Your task to perform on an android device: clear history in the chrome app Image 0: 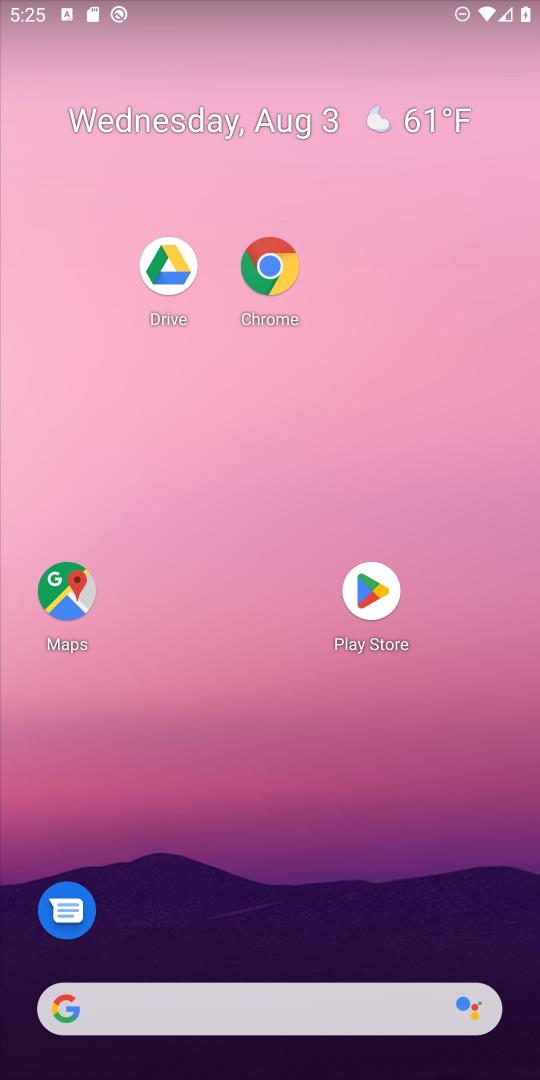
Step 0: drag from (418, 1026) to (428, 4)
Your task to perform on an android device: clear history in the chrome app Image 1: 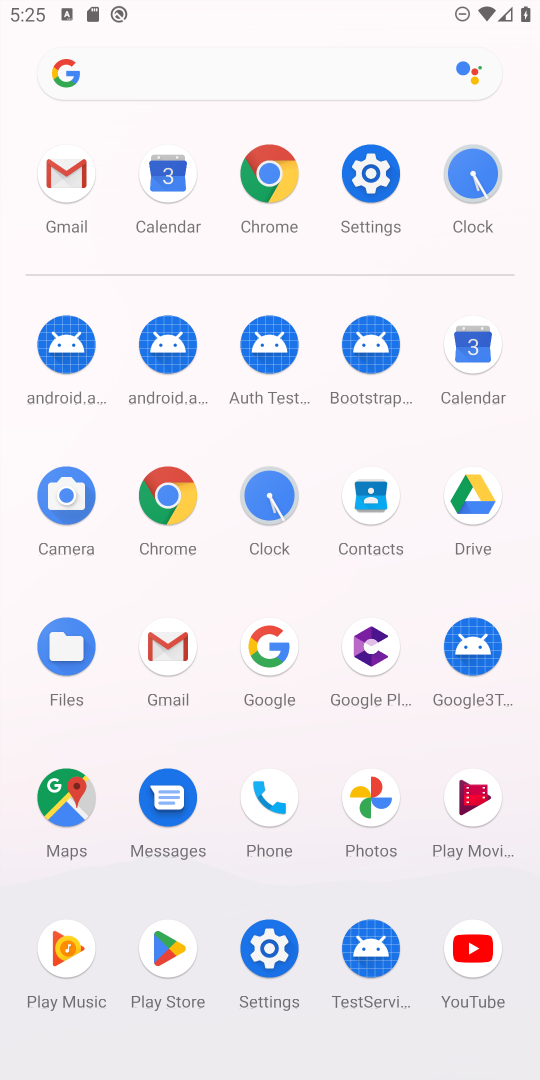
Step 1: click (162, 484)
Your task to perform on an android device: clear history in the chrome app Image 2: 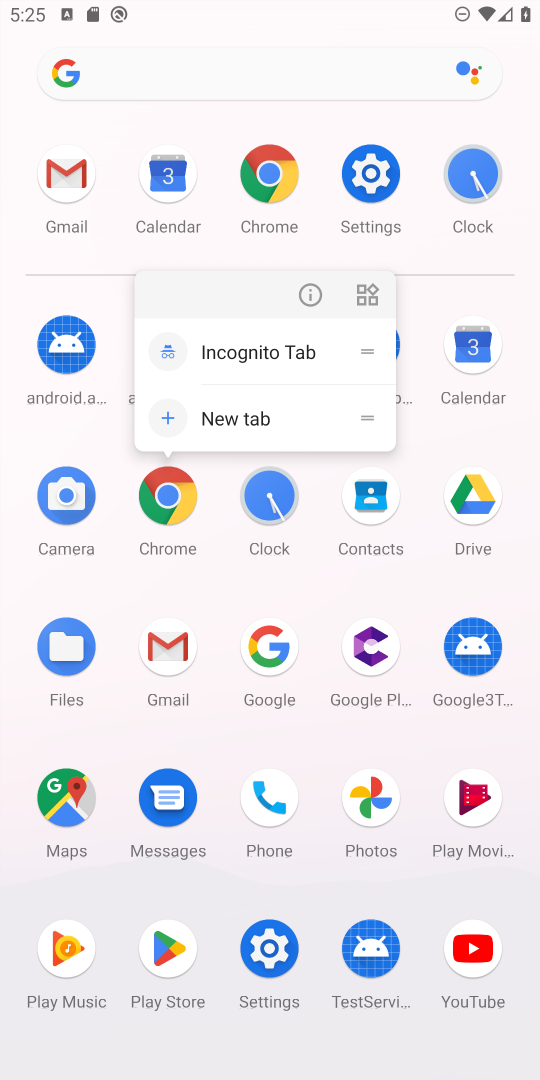
Step 2: click (170, 496)
Your task to perform on an android device: clear history in the chrome app Image 3: 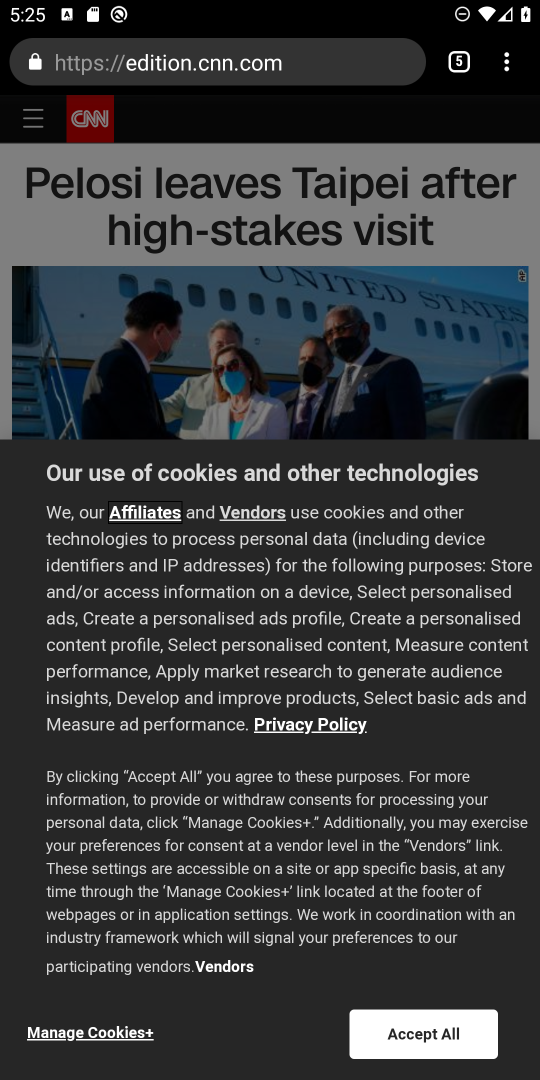
Step 3: drag from (506, 45) to (314, 334)
Your task to perform on an android device: clear history in the chrome app Image 4: 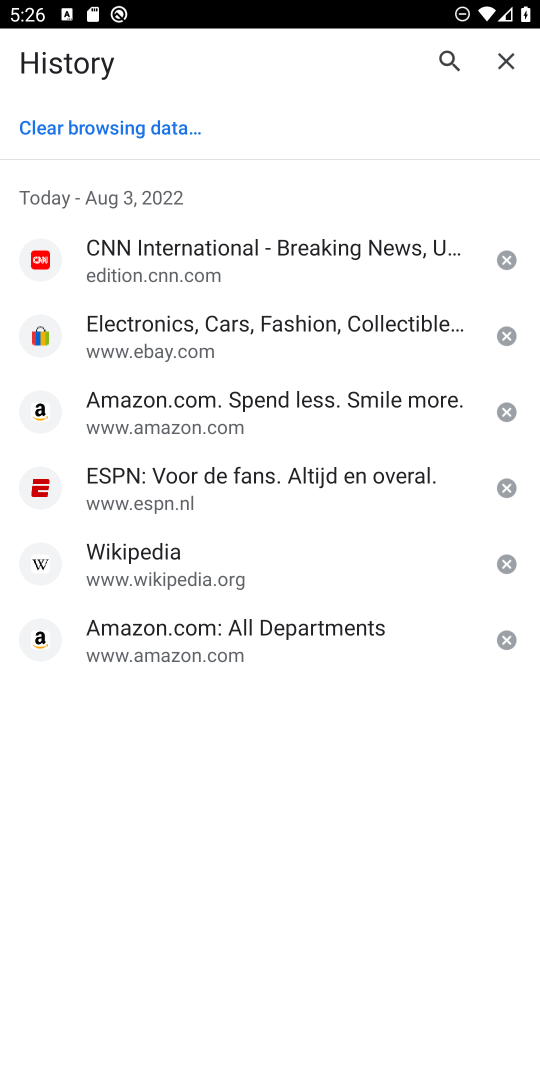
Step 4: click (137, 119)
Your task to perform on an android device: clear history in the chrome app Image 5: 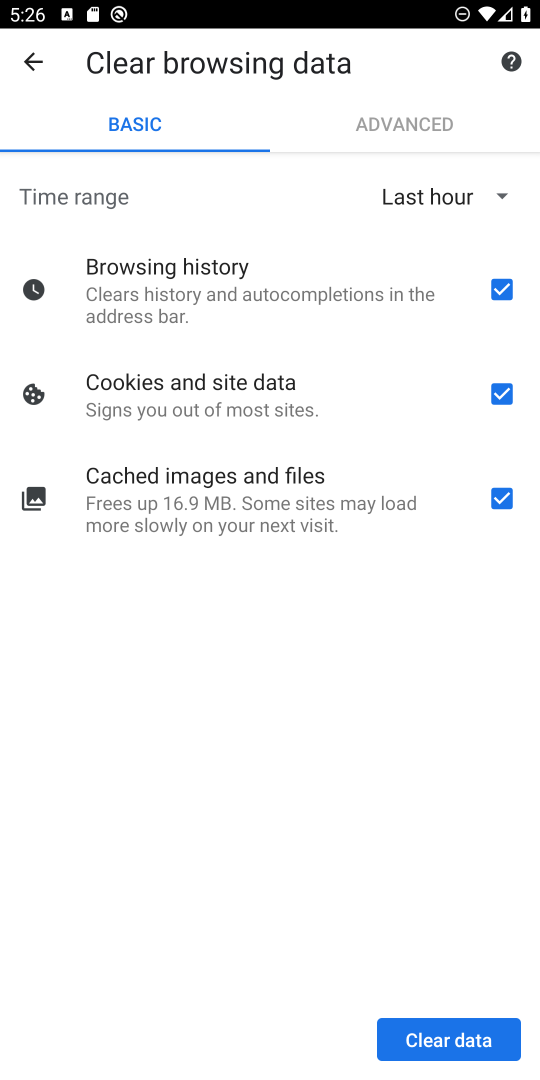
Step 5: click (446, 1044)
Your task to perform on an android device: clear history in the chrome app Image 6: 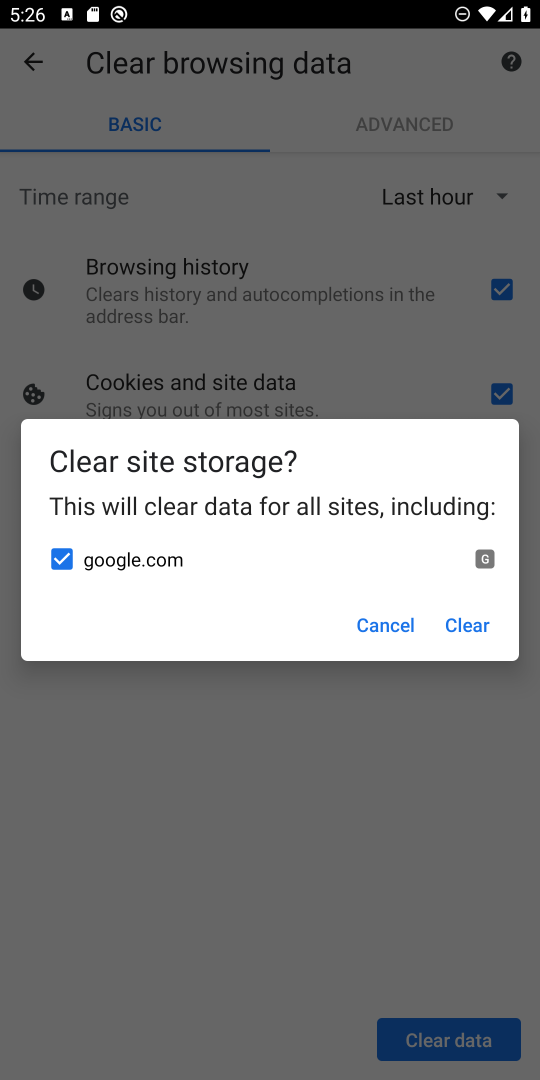
Step 6: click (473, 624)
Your task to perform on an android device: clear history in the chrome app Image 7: 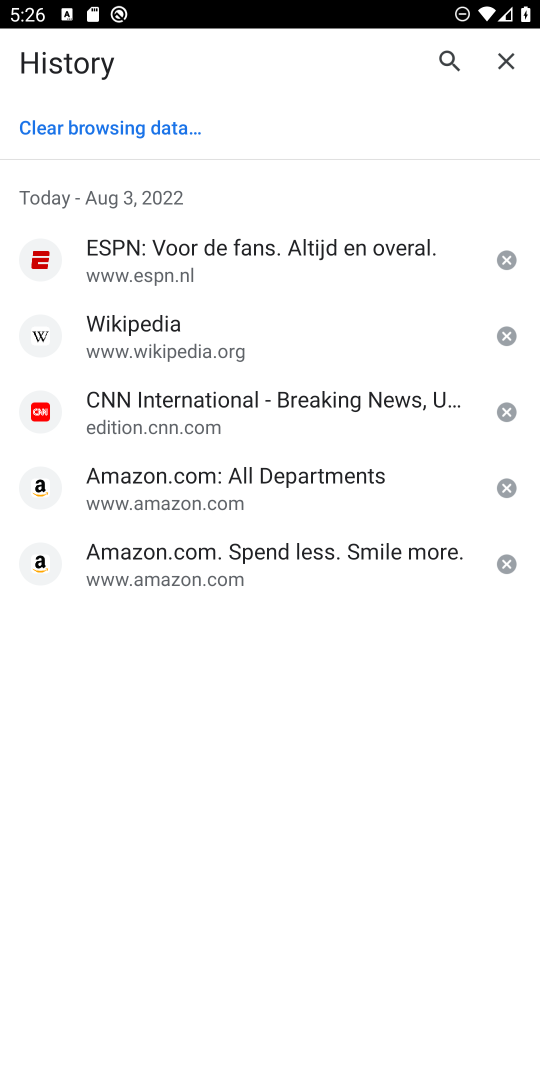
Step 7: click (512, 259)
Your task to perform on an android device: clear history in the chrome app Image 8: 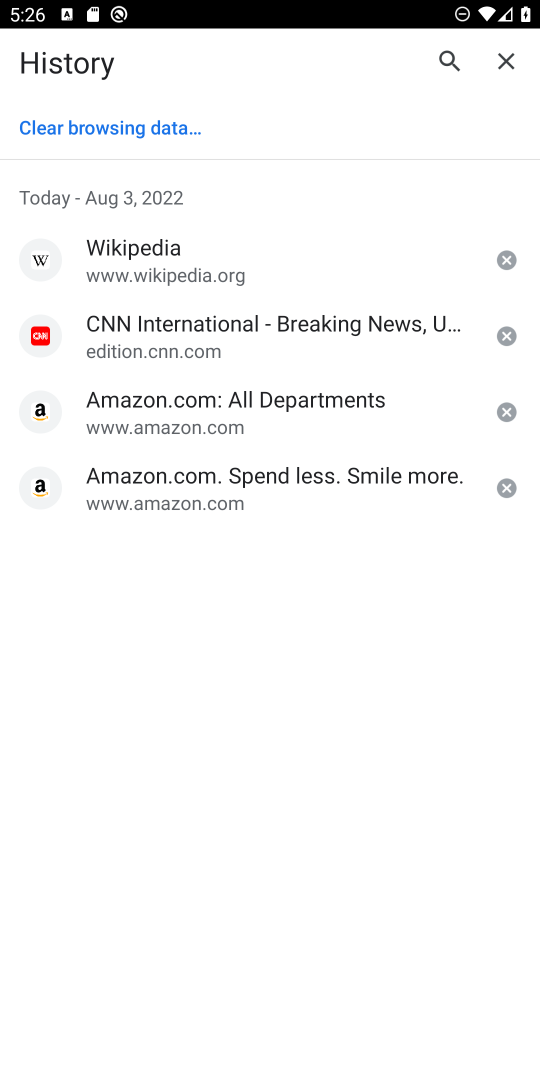
Step 8: click (512, 259)
Your task to perform on an android device: clear history in the chrome app Image 9: 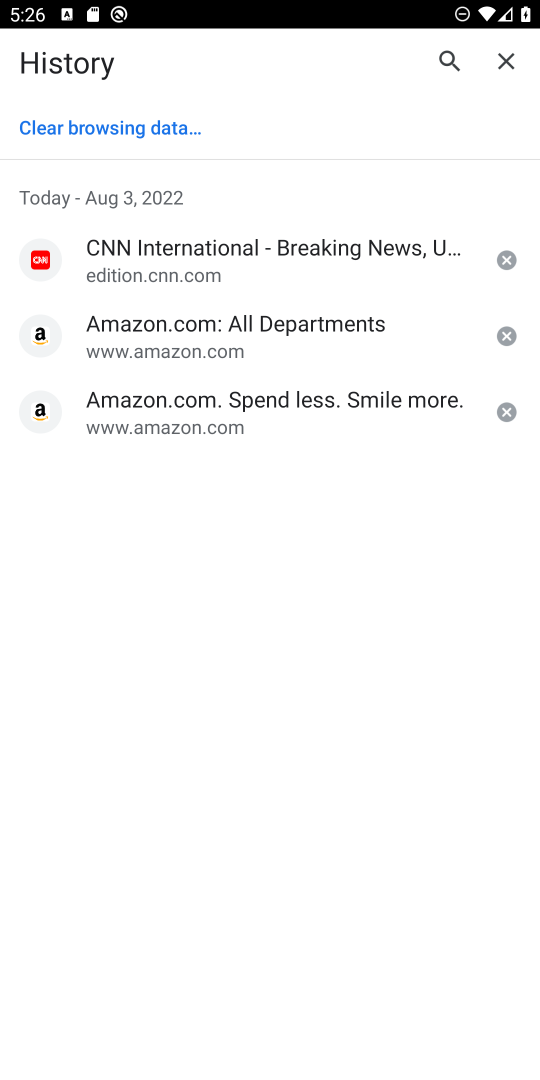
Step 9: click (512, 259)
Your task to perform on an android device: clear history in the chrome app Image 10: 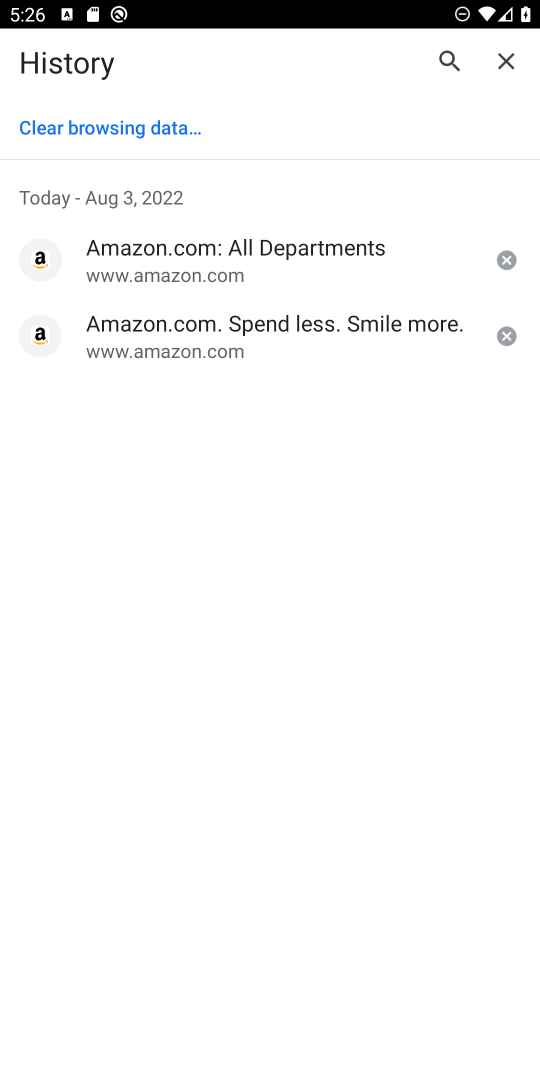
Step 10: click (512, 259)
Your task to perform on an android device: clear history in the chrome app Image 11: 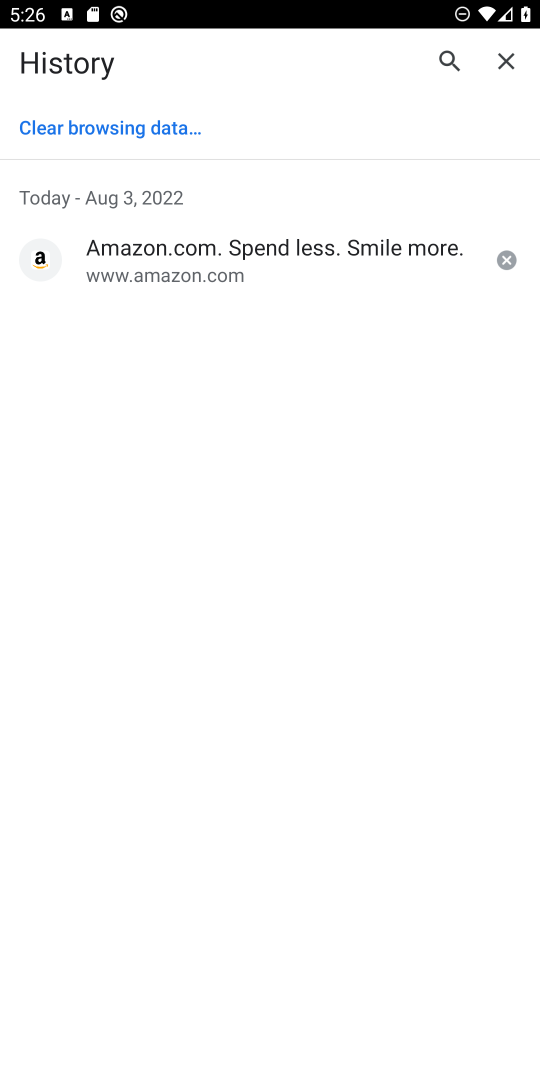
Step 11: click (512, 259)
Your task to perform on an android device: clear history in the chrome app Image 12: 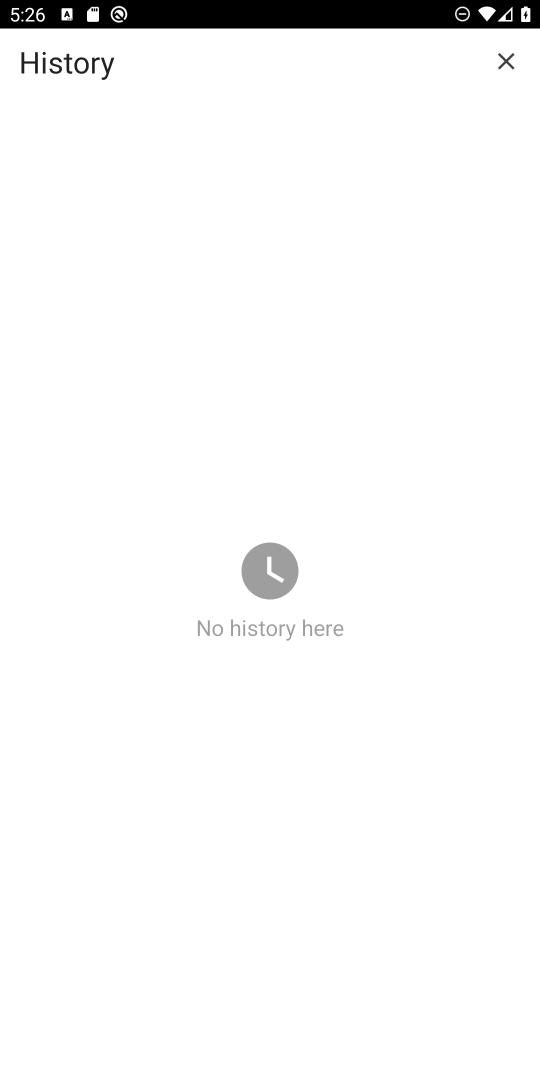
Step 12: task complete